Your task to perform on an android device: What's the weather going to be this weekend? Image 0: 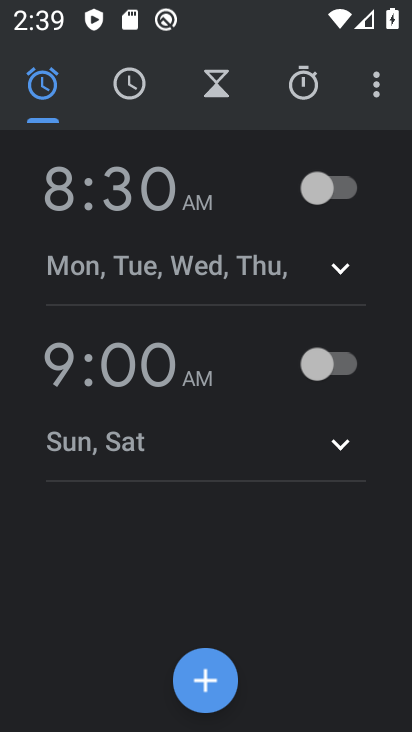
Step 0: press home button
Your task to perform on an android device: What's the weather going to be this weekend? Image 1: 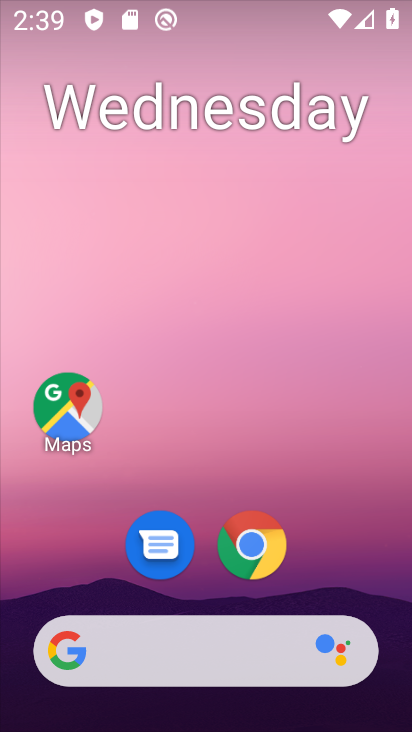
Step 1: click (205, 663)
Your task to perform on an android device: What's the weather going to be this weekend? Image 2: 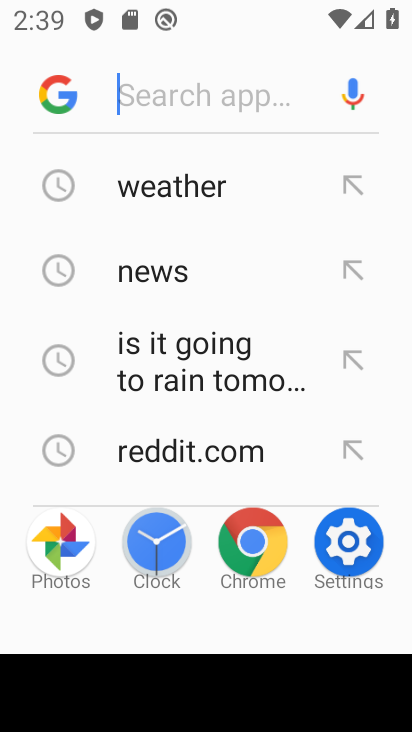
Step 2: click (184, 199)
Your task to perform on an android device: What's the weather going to be this weekend? Image 3: 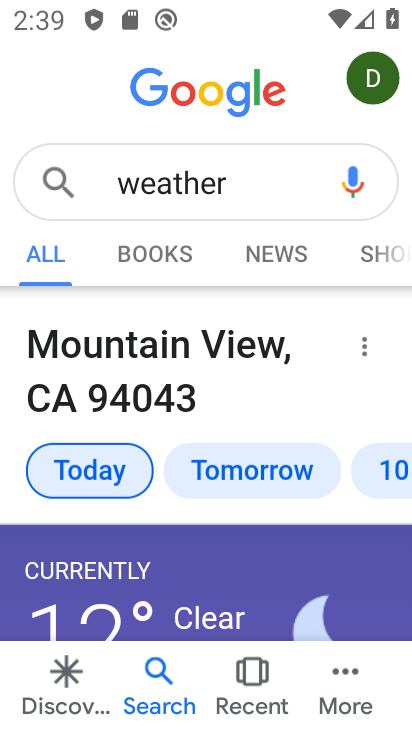
Step 3: click (401, 472)
Your task to perform on an android device: What's the weather going to be this weekend? Image 4: 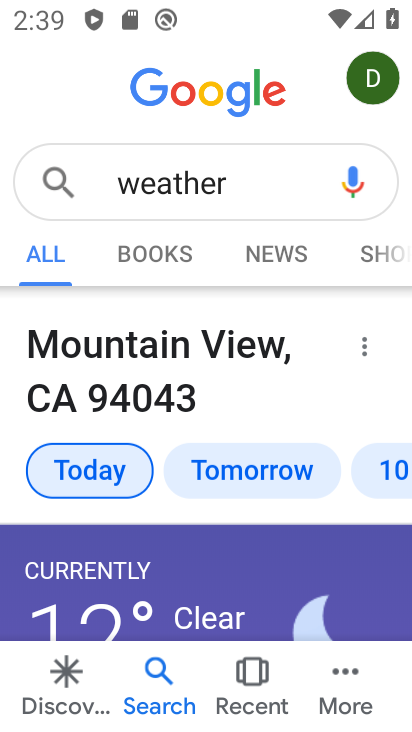
Step 4: click (368, 475)
Your task to perform on an android device: What's the weather going to be this weekend? Image 5: 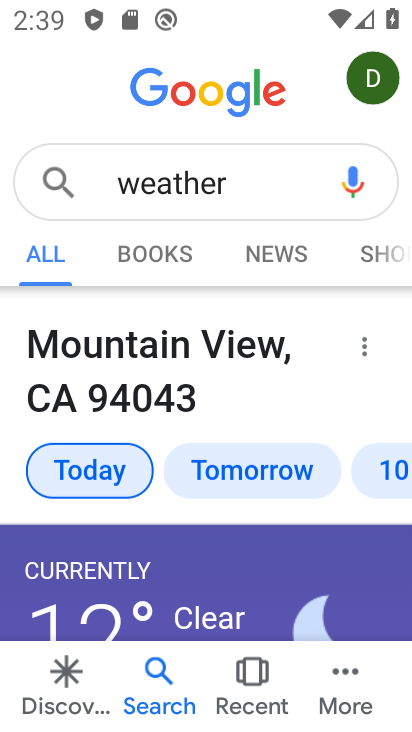
Step 5: click (382, 478)
Your task to perform on an android device: What's the weather going to be this weekend? Image 6: 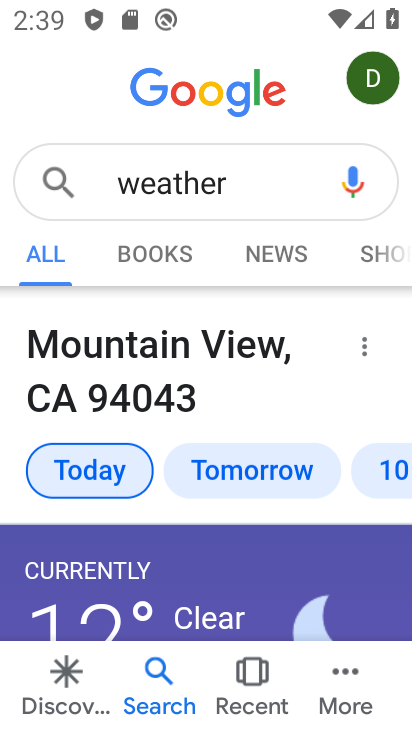
Step 6: task complete